Your task to perform on an android device: change the clock display to analog Image 0: 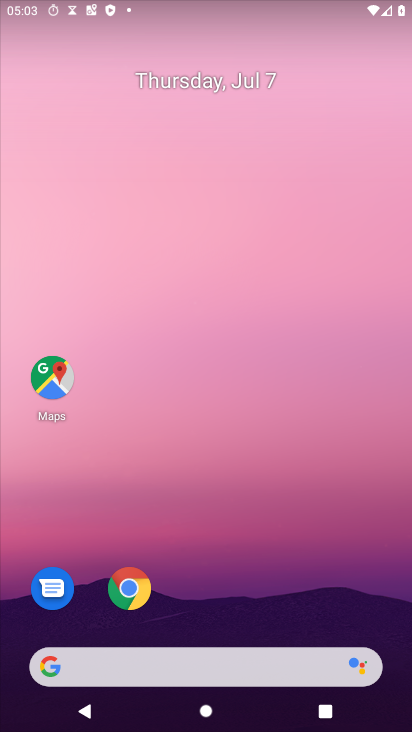
Step 0: press home button
Your task to perform on an android device: change the clock display to analog Image 1: 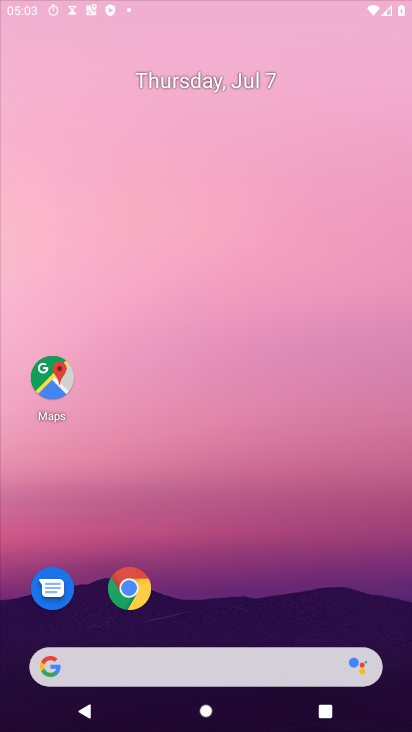
Step 1: drag from (226, 638) to (294, 226)
Your task to perform on an android device: change the clock display to analog Image 2: 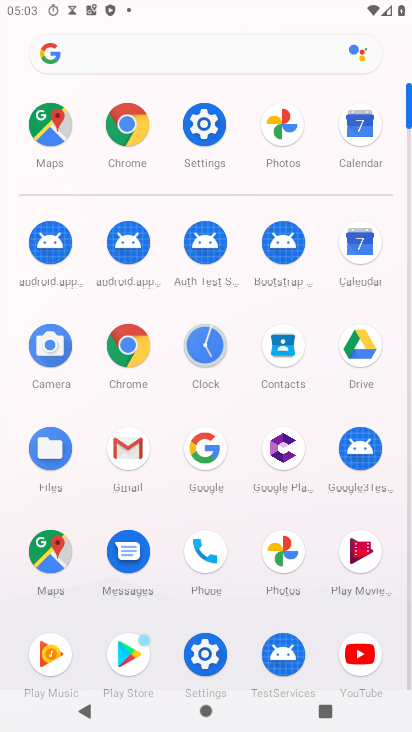
Step 2: click (201, 342)
Your task to perform on an android device: change the clock display to analog Image 3: 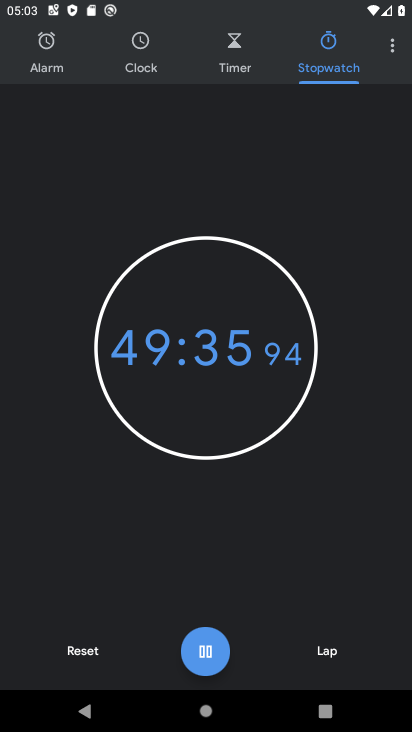
Step 3: click (395, 47)
Your task to perform on an android device: change the clock display to analog Image 4: 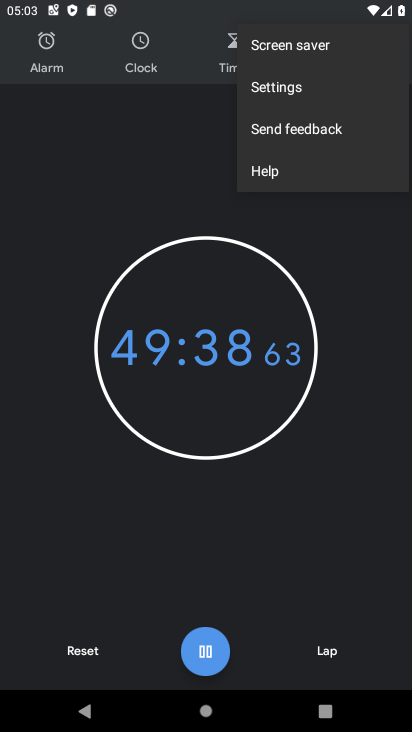
Step 4: click (290, 91)
Your task to perform on an android device: change the clock display to analog Image 5: 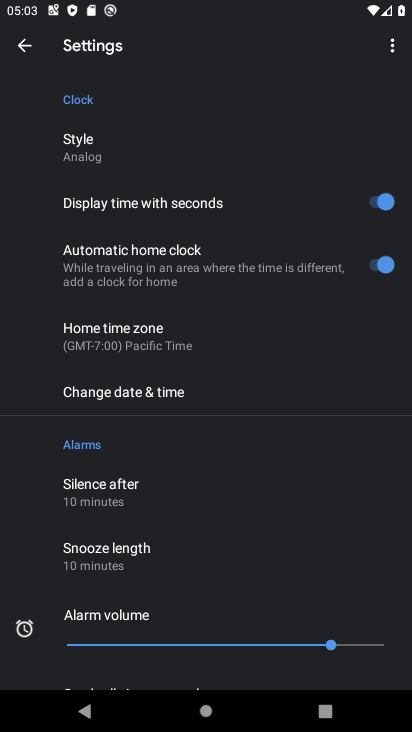
Step 5: click (70, 146)
Your task to perform on an android device: change the clock display to analog Image 6: 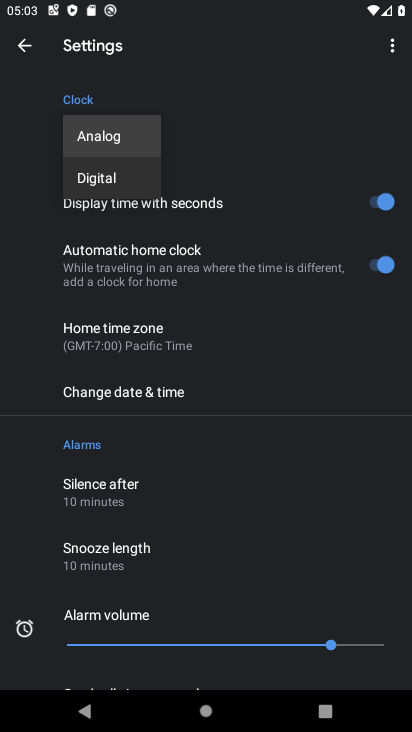
Step 6: click (152, 145)
Your task to perform on an android device: change the clock display to analog Image 7: 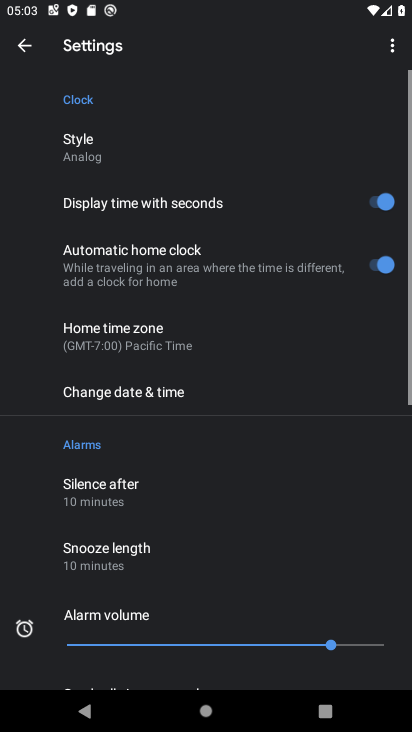
Step 7: task complete